Your task to perform on an android device: find which apps use the phone's location Image 0: 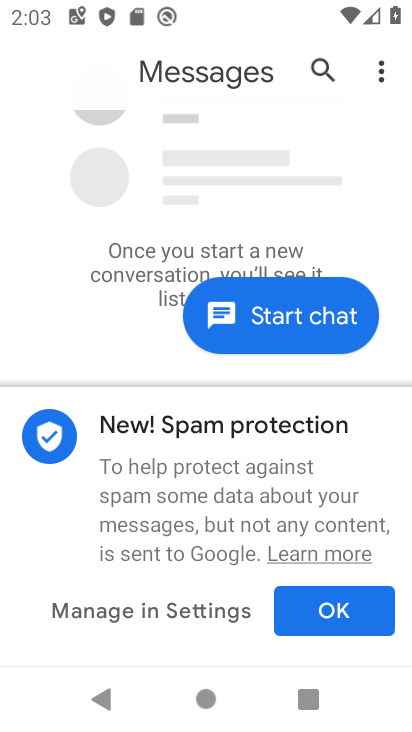
Step 0: press home button
Your task to perform on an android device: find which apps use the phone's location Image 1: 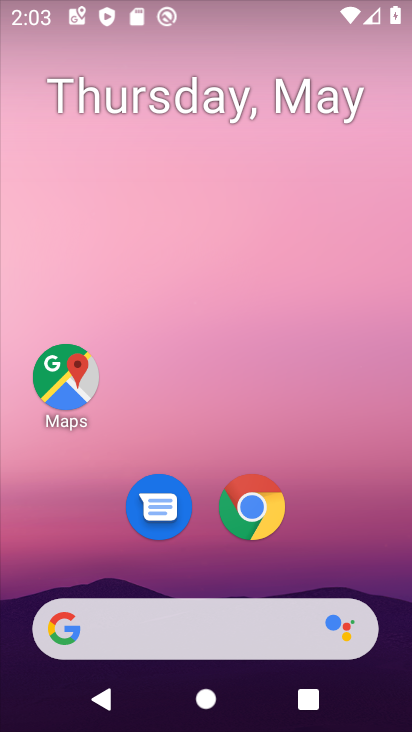
Step 1: drag from (301, 573) to (293, 3)
Your task to perform on an android device: find which apps use the phone's location Image 2: 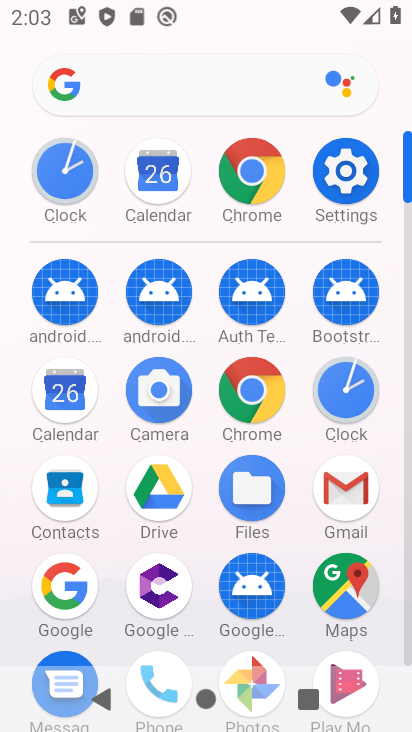
Step 2: click (331, 163)
Your task to perform on an android device: find which apps use the phone's location Image 3: 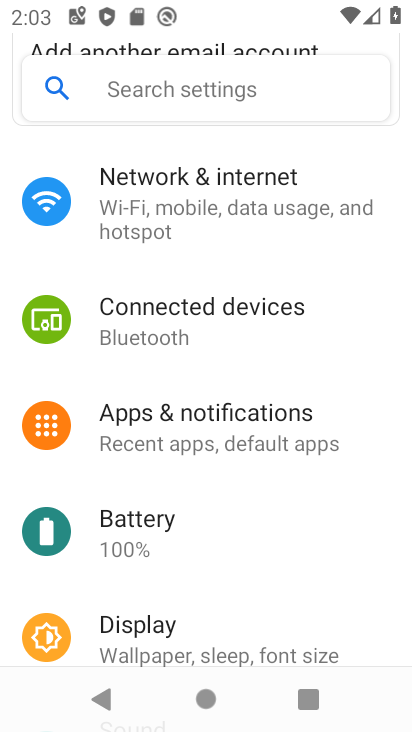
Step 3: drag from (210, 598) to (232, 72)
Your task to perform on an android device: find which apps use the phone's location Image 4: 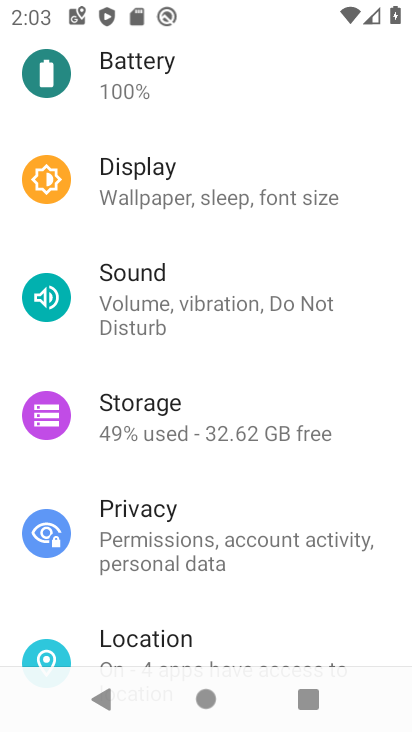
Step 4: click (225, 650)
Your task to perform on an android device: find which apps use the phone's location Image 5: 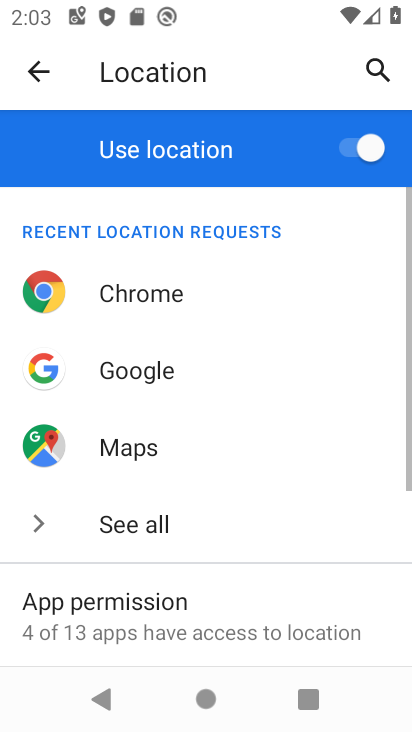
Step 5: task complete